Your task to perform on an android device: toggle priority inbox in the gmail app Image 0: 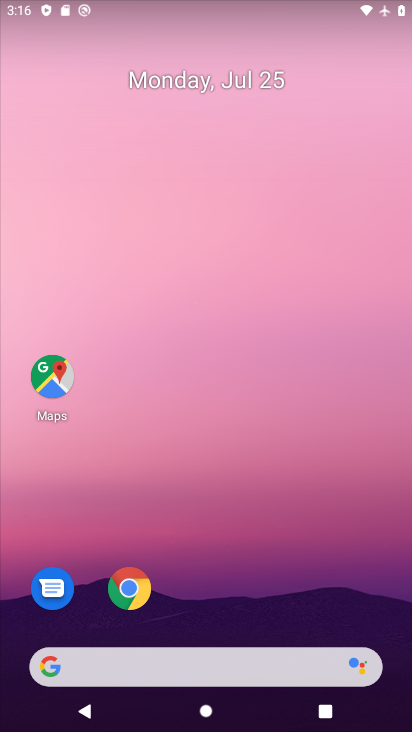
Step 0: drag from (234, 687) to (244, 118)
Your task to perform on an android device: toggle priority inbox in the gmail app Image 1: 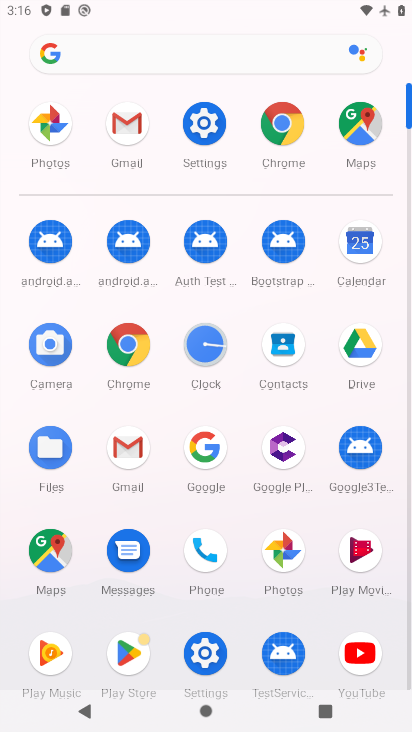
Step 1: click (136, 445)
Your task to perform on an android device: toggle priority inbox in the gmail app Image 2: 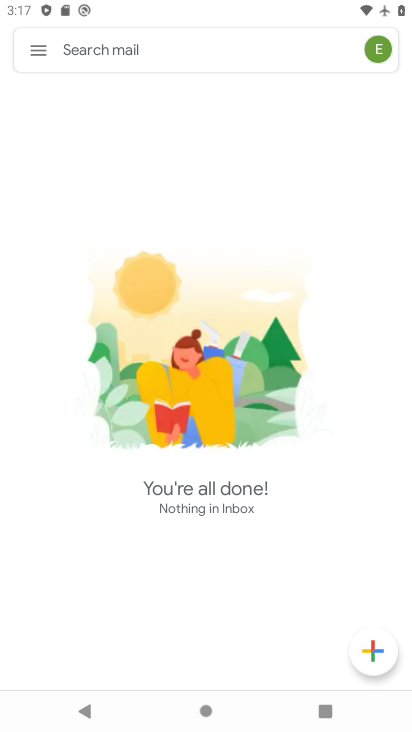
Step 2: click (41, 46)
Your task to perform on an android device: toggle priority inbox in the gmail app Image 3: 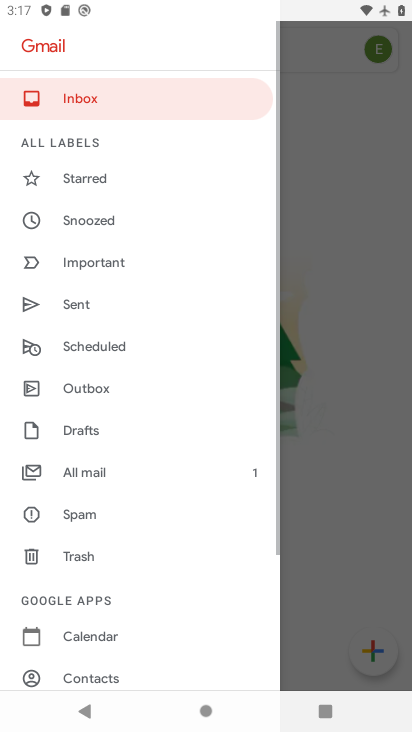
Step 3: drag from (132, 672) to (131, 280)
Your task to perform on an android device: toggle priority inbox in the gmail app Image 4: 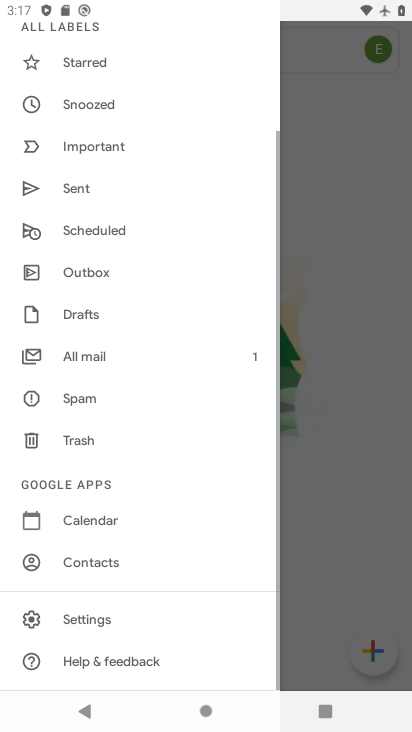
Step 4: click (90, 612)
Your task to perform on an android device: toggle priority inbox in the gmail app Image 5: 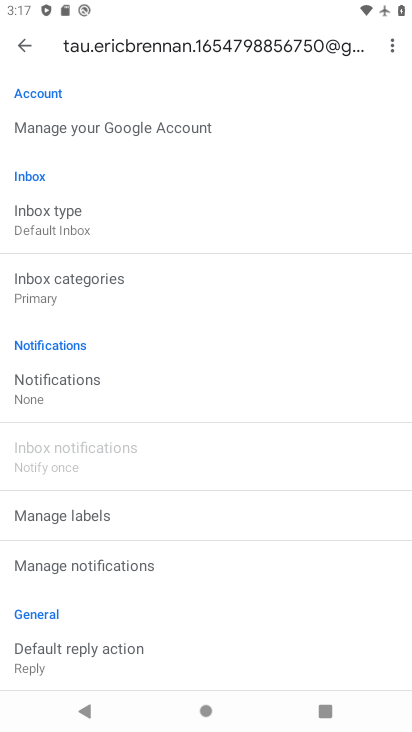
Step 5: click (66, 223)
Your task to perform on an android device: toggle priority inbox in the gmail app Image 6: 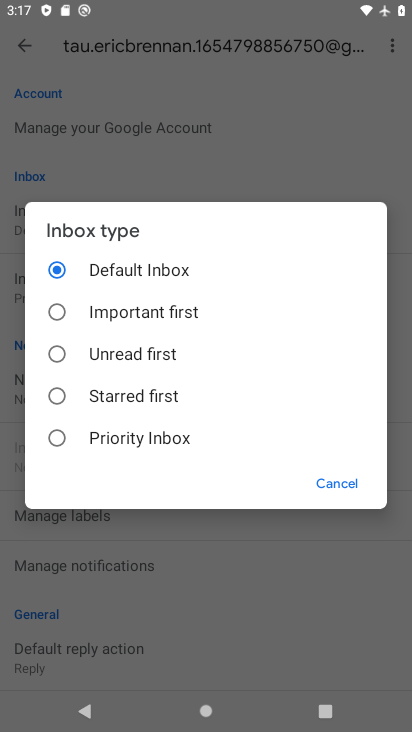
Step 6: click (59, 434)
Your task to perform on an android device: toggle priority inbox in the gmail app Image 7: 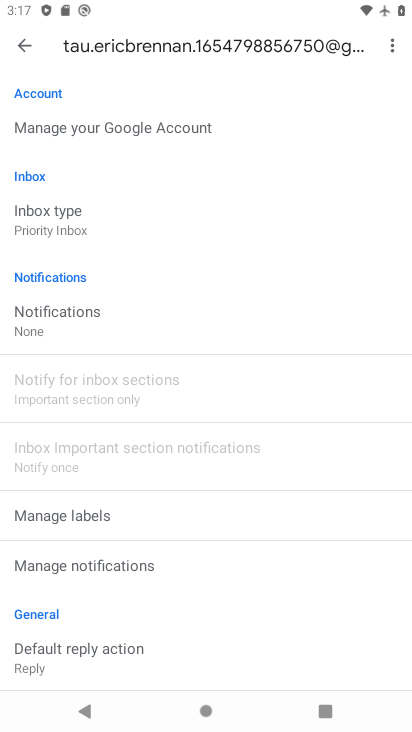
Step 7: task complete